Your task to perform on an android device: Check the weather Image 0: 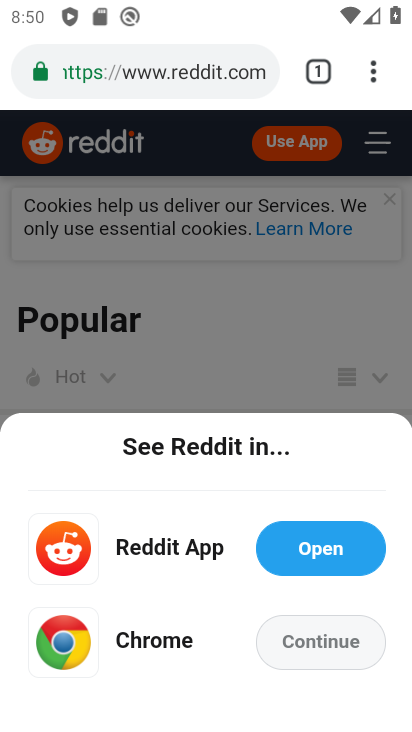
Step 0: press back button
Your task to perform on an android device: Check the weather Image 1: 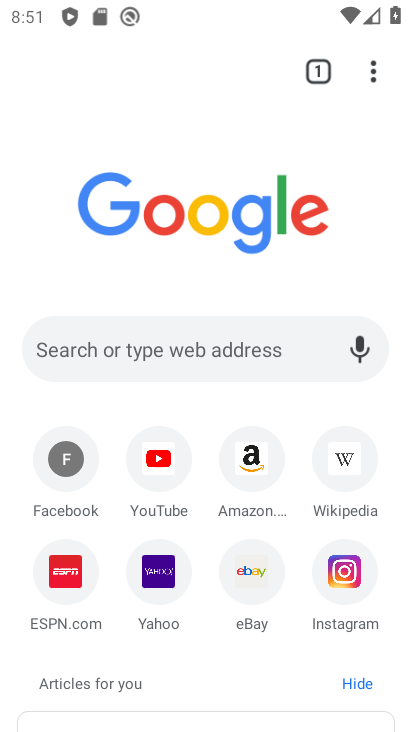
Step 1: press back button
Your task to perform on an android device: Check the weather Image 2: 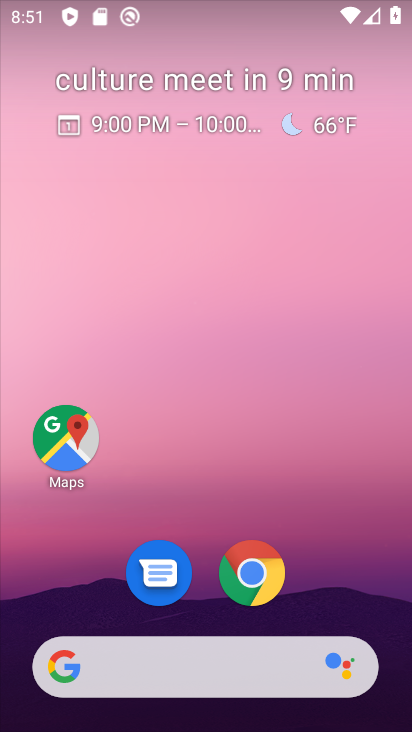
Step 2: click (303, 132)
Your task to perform on an android device: Check the weather Image 3: 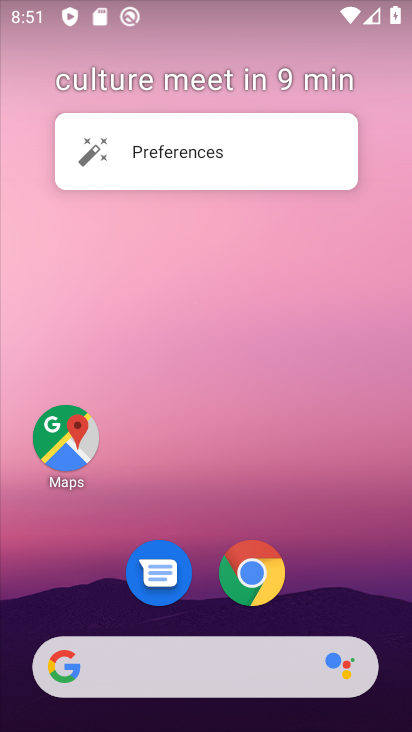
Step 3: click (297, 277)
Your task to perform on an android device: Check the weather Image 4: 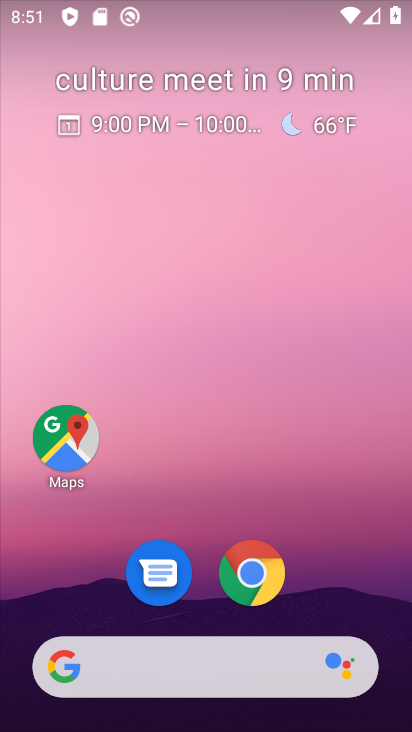
Step 4: click (296, 126)
Your task to perform on an android device: Check the weather Image 5: 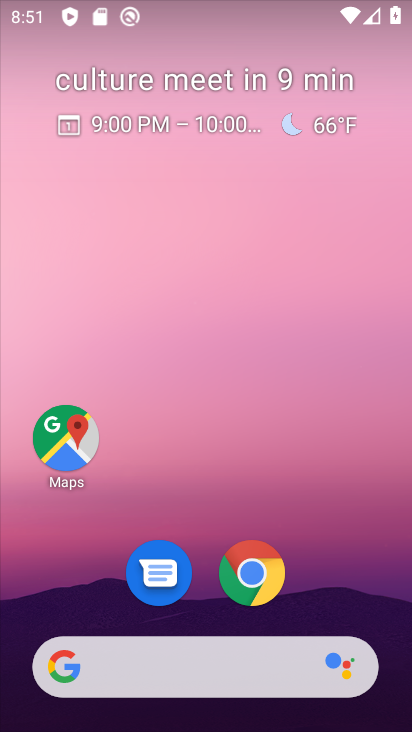
Step 5: click (292, 128)
Your task to perform on an android device: Check the weather Image 6: 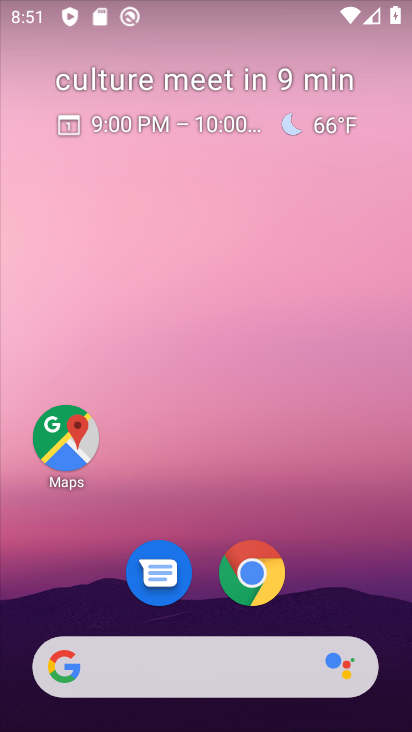
Step 6: click (289, 123)
Your task to perform on an android device: Check the weather Image 7: 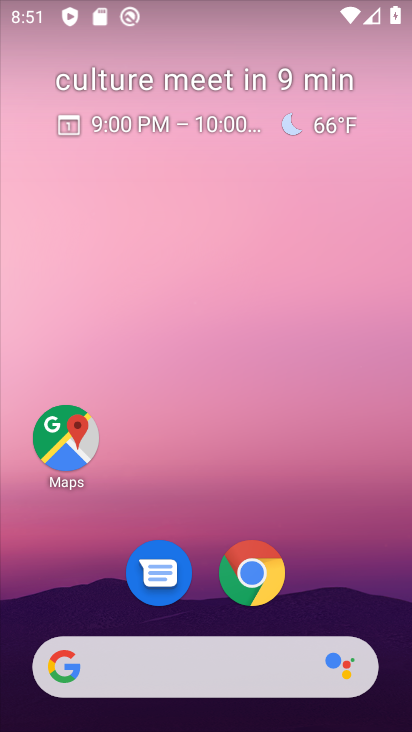
Step 7: click (289, 123)
Your task to perform on an android device: Check the weather Image 8: 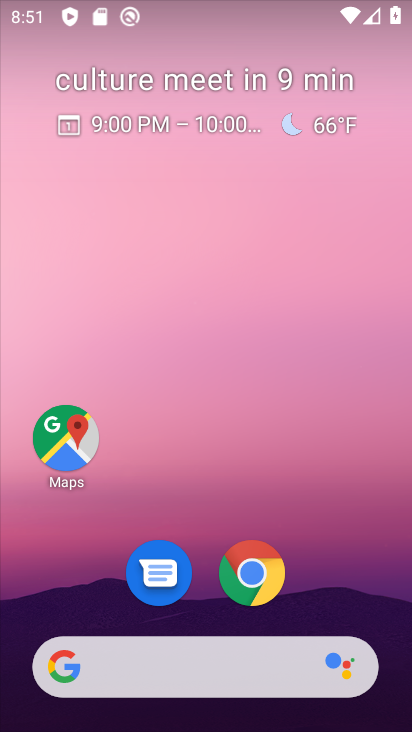
Step 8: click (291, 122)
Your task to perform on an android device: Check the weather Image 9: 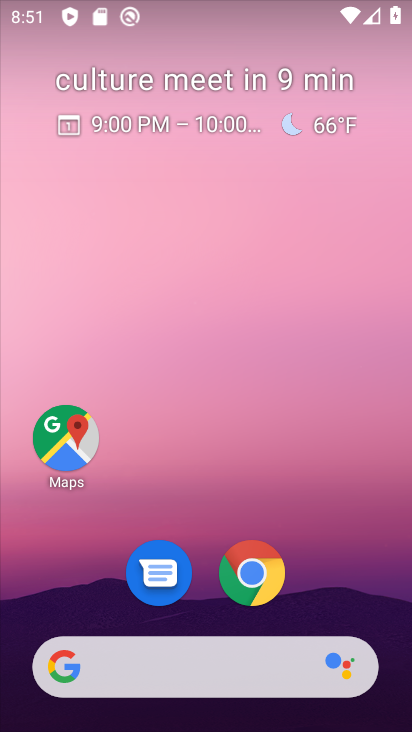
Step 9: click (170, 651)
Your task to perform on an android device: Check the weather Image 10: 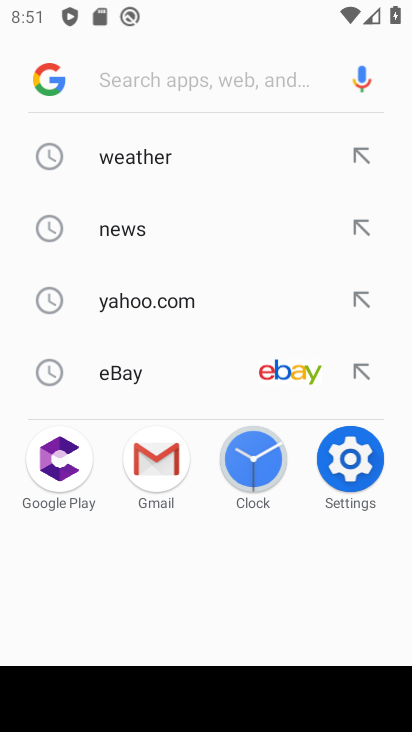
Step 10: click (130, 155)
Your task to perform on an android device: Check the weather Image 11: 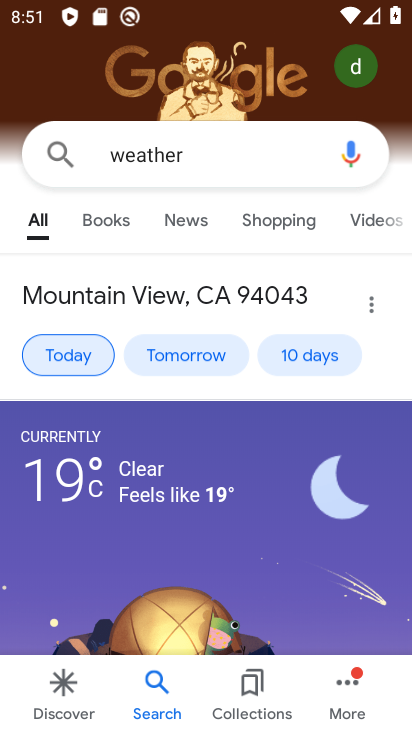
Step 11: task complete